Your task to perform on an android device: Open settings on Google Maps Image 0: 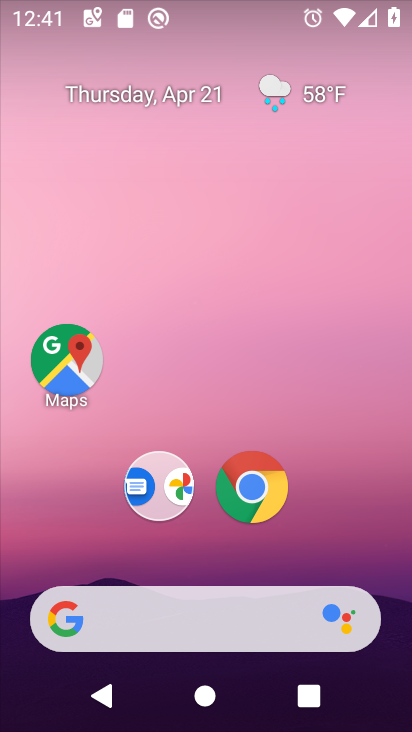
Step 0: drag from (248, 654) to (320, 301)
Your task to perform on an android device: Open settings on Google Maps Image 1: 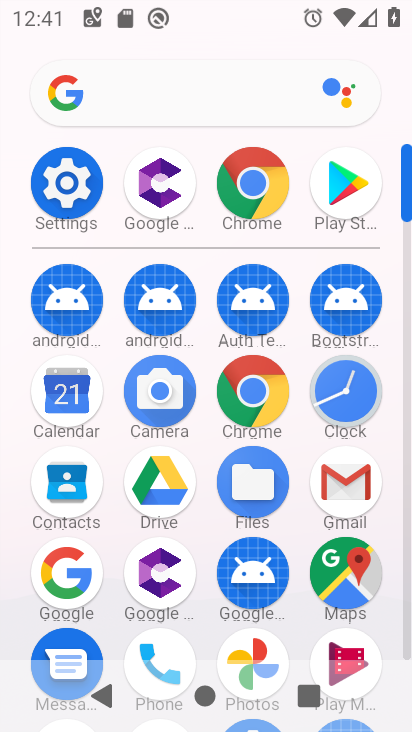
Step 1: click (345, 575)
Your task to perform on an android device: Open settings on Google Maps Image 2: 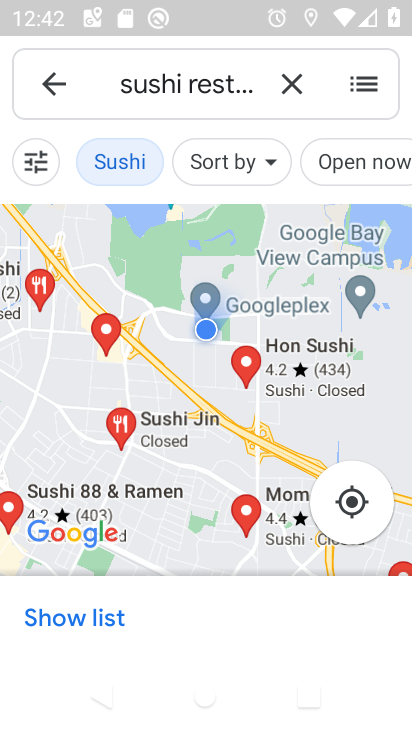
Step 2: click (60, 92)
Your task to perform on an android device: Open settings on Google Maps Image 3: 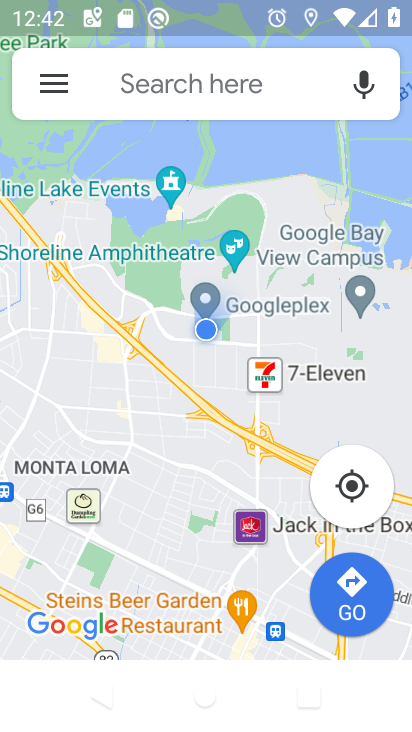
Step 3: click (53, 96)
Your task to perform on an android device: Open settings on Google Maps Image 4: 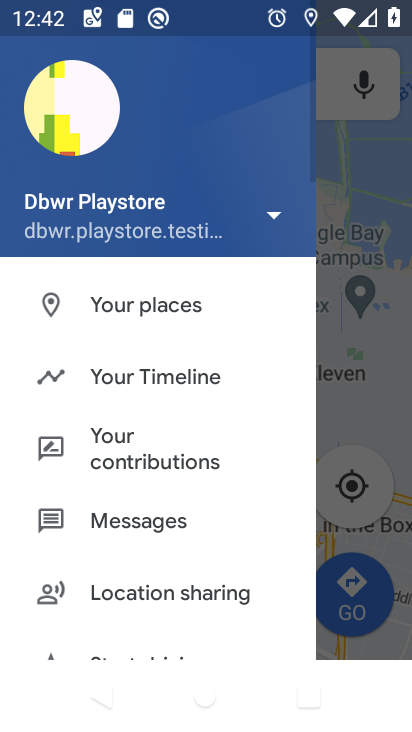
Step 4: drag from (136, 567) to (233, 277)
Your task to perform on an android device: Open settings on Google Maps Image 5: 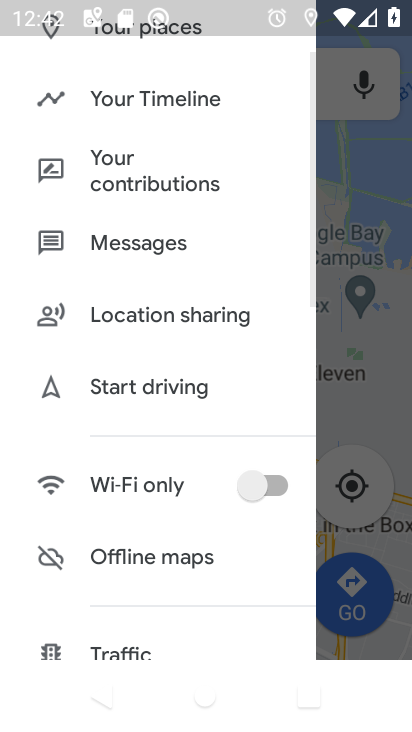
Step 5: drag from (165, 552) to (227, 382)
Your task to perform on an android device: Open settings on Google Maps Image 6: 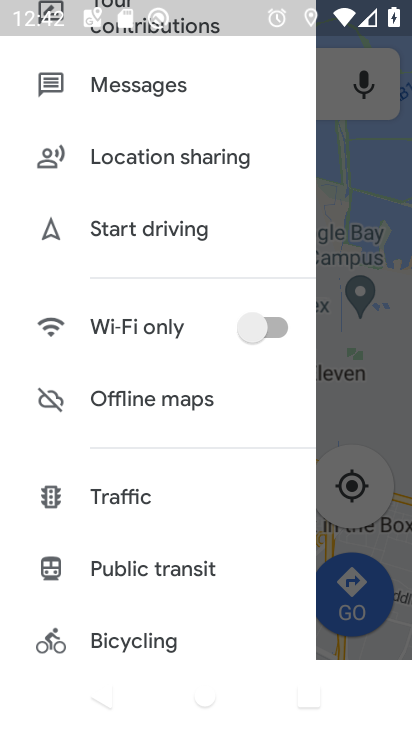
Step 6: drag from (120, 593) to (163, 408)
Your task to perform on an android device: Open settings on Google Maps Image 7: 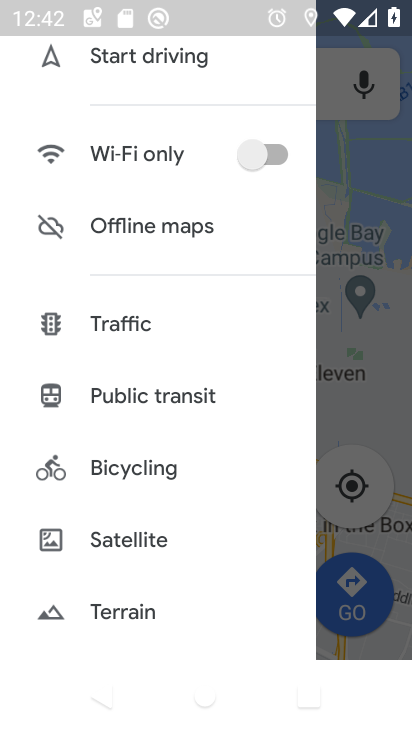
Step 7: drag from (137, 590) to (158, 373)
Your task to perform on an android device: Open settings on Google Maps Image 8: 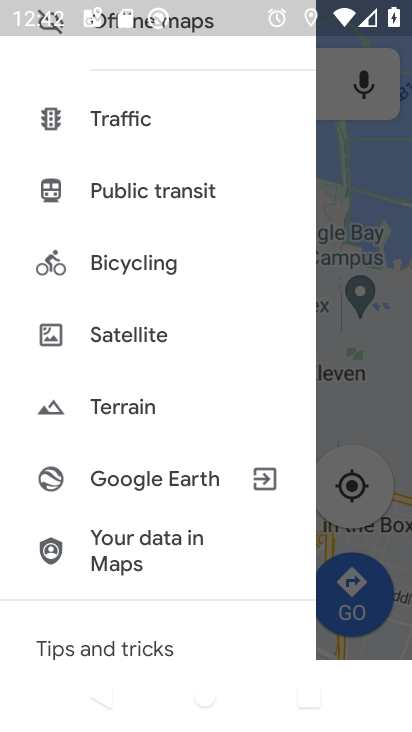
Step 8: drag from (122, 557) to (153, 374)
Your task to perform on an android device: Open settings on Google Maps Image 9: 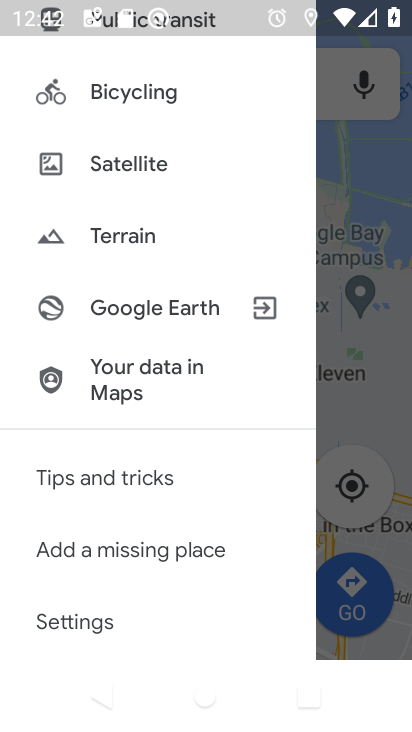
Step 9: click (85, 617)
Your task to perform on an android device: Open settings on Google Maps Image 10: 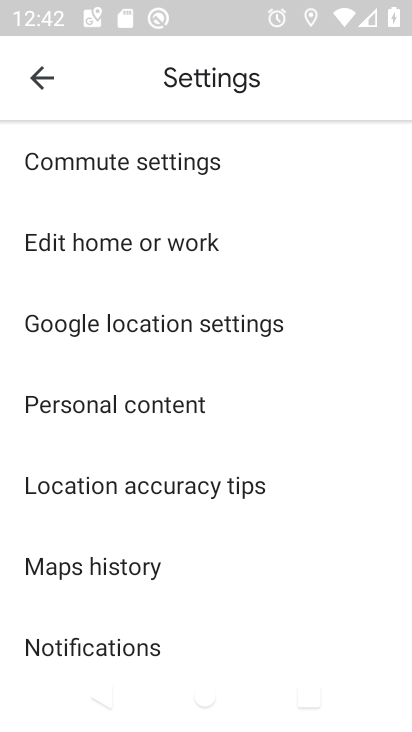
Step 10: task complete